Your task to perform on an android device: search for starred emails in the gmail app Image 0: 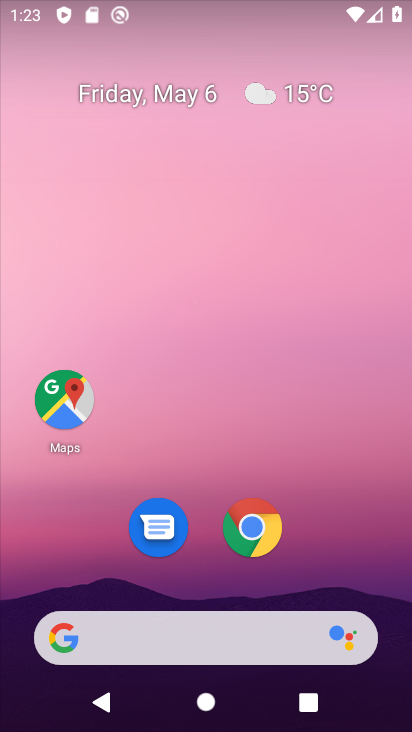
Step 0: drag from (156, 583) to (167, 82)
Your task to perform on an android device: search for starred emails in the gmail app Image 1: 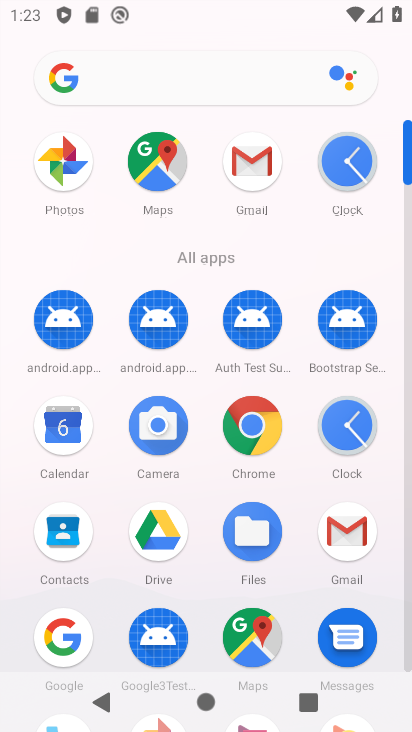
Step 1: click (236, 157)
Your task to perform on an android device: search for starred emails in the gmail app Image 2: 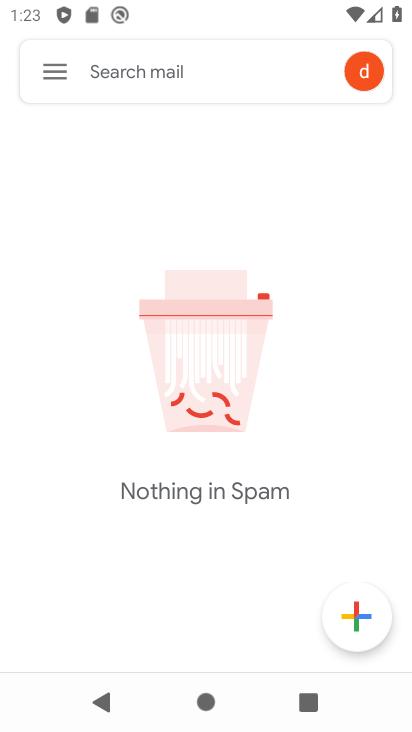
Step 2: click (57, 73)
Your task to perform on an android device: search for starred emails in the gmail app Image 3: 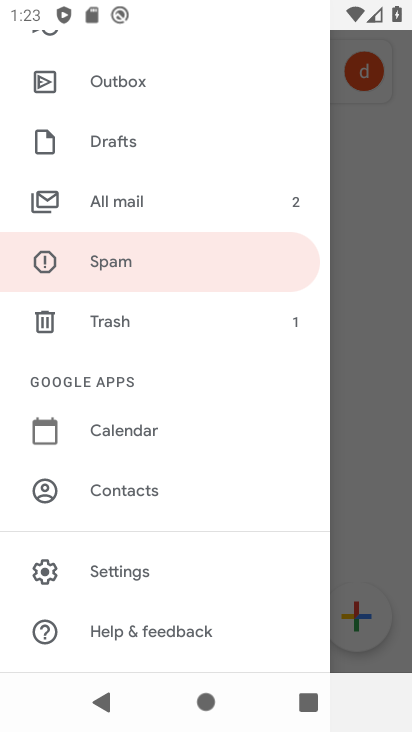
Step 3: drag from (147, 134) to (137, 498)
Your task to perform on an android device: search for starred emails in the gmail app Image 4: 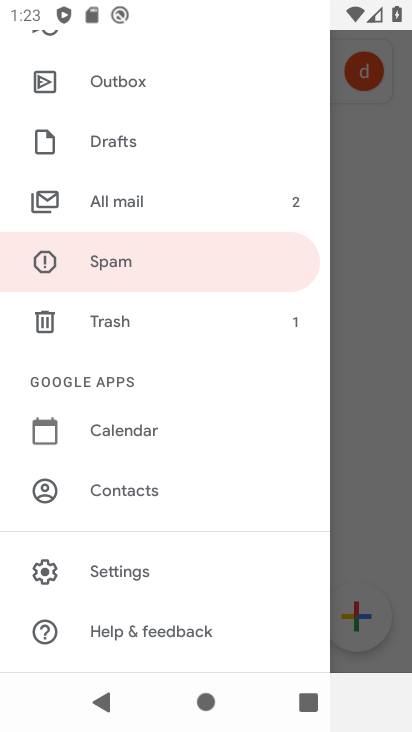
Step 4: drag from (195, 183) to (168, 570)
Your task to perform on an android device: search for starred emails in the gmail app Image 5: 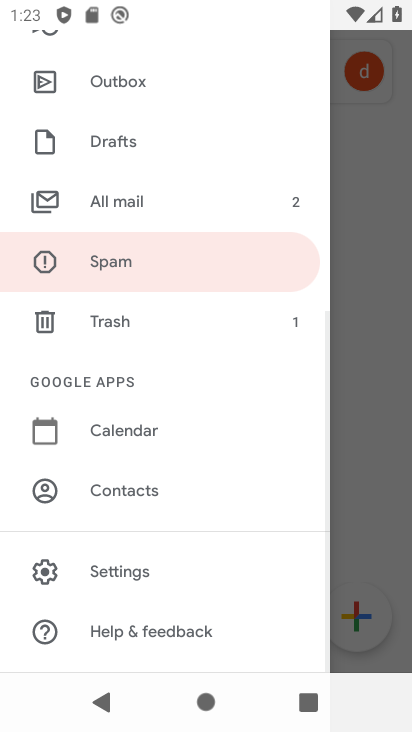
Step 5: drag from (168, 570) to (223, 148)
Your task to perform on an android device: search for starred emails in the gmail app Image 6: 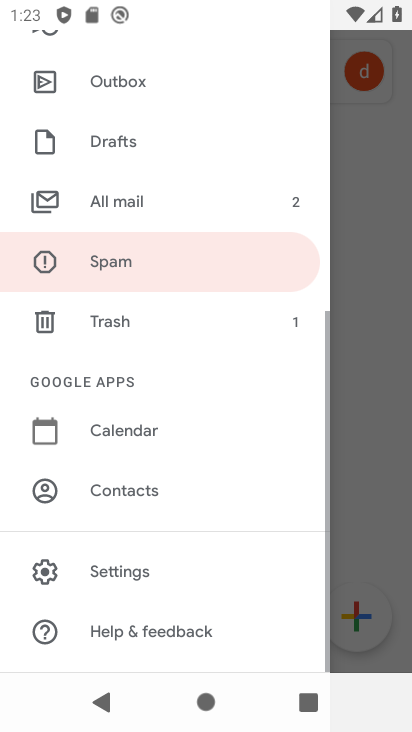
Step 6: drag from (223, 148) to (171, 643)
Your task to perform on an android device: search for starred emails in the gmail app Image 7: 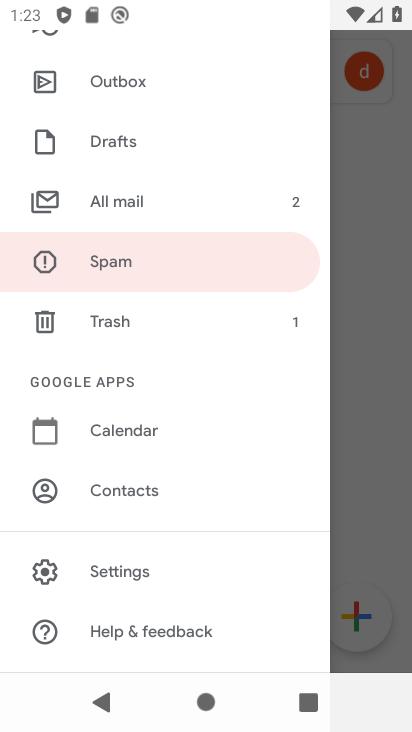
Step 7: drag from (150, 90) to (201, 645)
Your task to perform on an android device: search for starred emails in the gmail app Image 8: 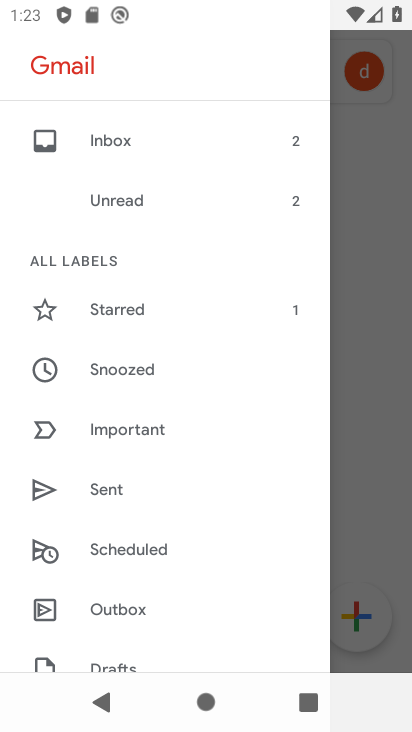
Step 8: click (173, 292)
Your task to perform on an android device: search for starred emails in the gmail app Image 9: 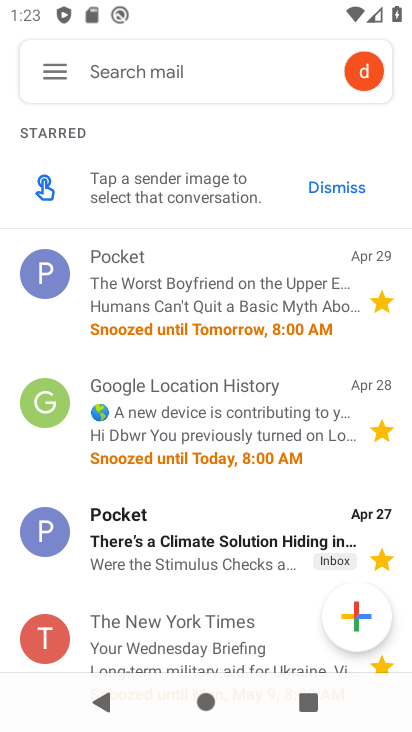
Step 9: task complete